Your task to perform on an android device: change the clock display to digital Image 0: 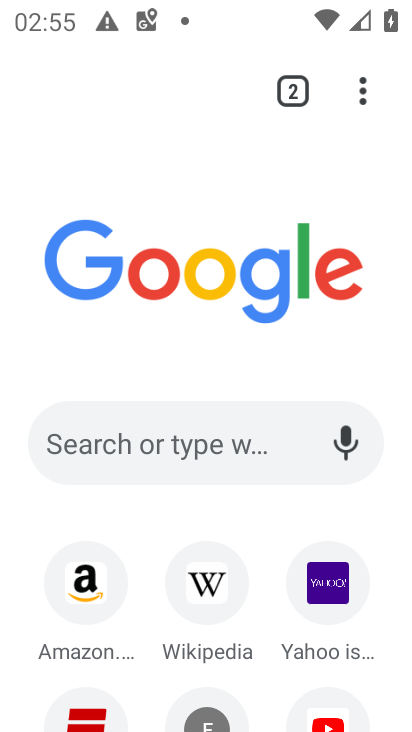
Step 0: press home button
Your task to perform on an android device: change the clock display to digital Image 1: 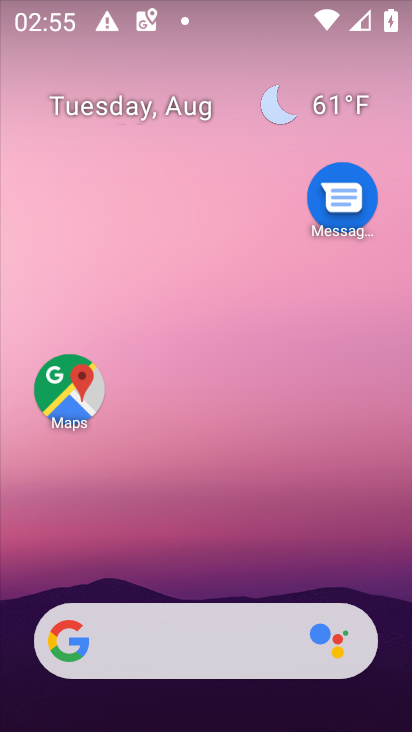
Step 1: drag from (220, 583) to (195, 116)
Your task to perform on an android device: change the clock display to digital Image 2: 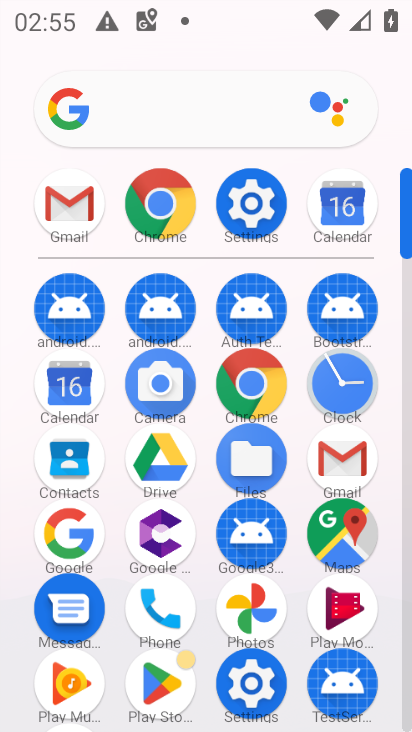
Step 2: click (339, 382)
Your task to perform on an android device: change the clock display to digital Image 3: 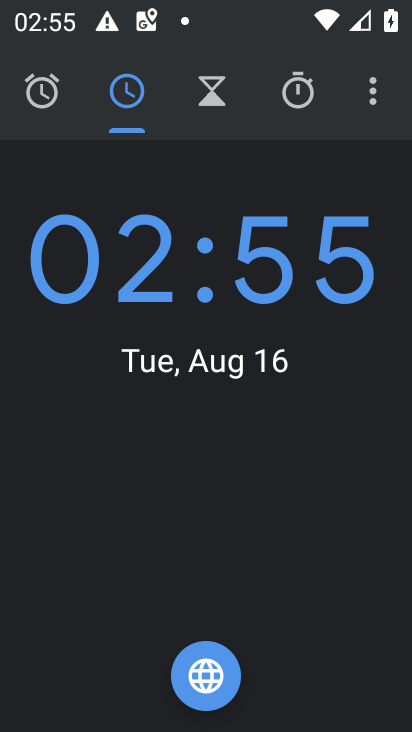
Step 3: click (374, 103)
Your task to perform on an android device: change the clock display to digital Image 4: 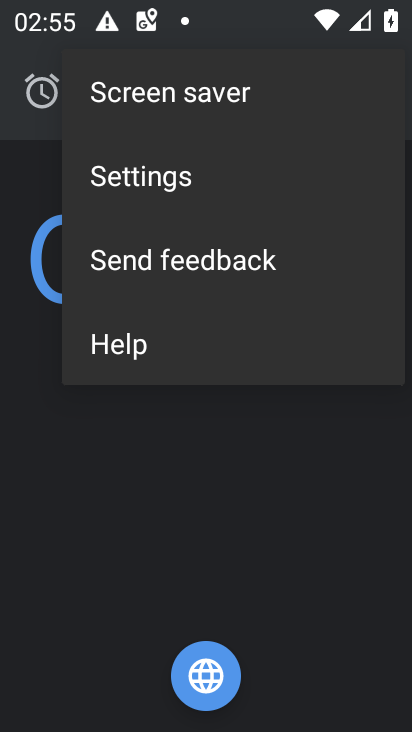
Step 4: click (223, 187)
Your task to perform on an android device: change the clock display to digital Image 5: 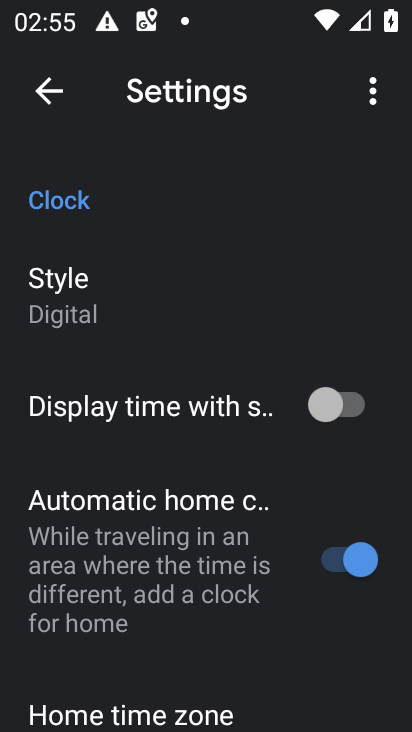
Step 5: task complete